Your task to perform on an android device: set an alarm Image 0: 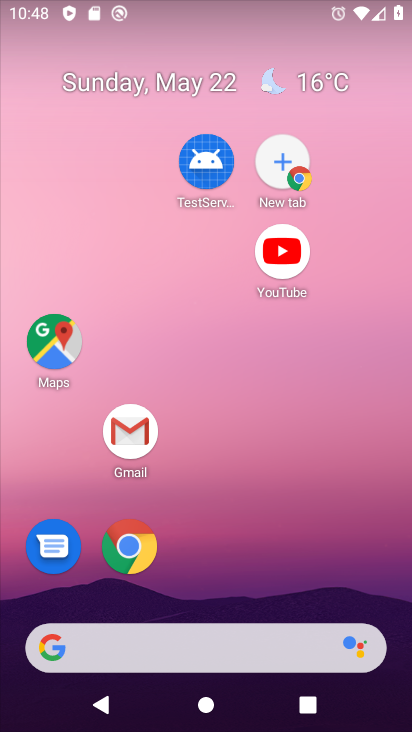
Step 0: drag from (294, 722) to (156, 63)
Your task to perform on an android device: set an alarm Image 1: 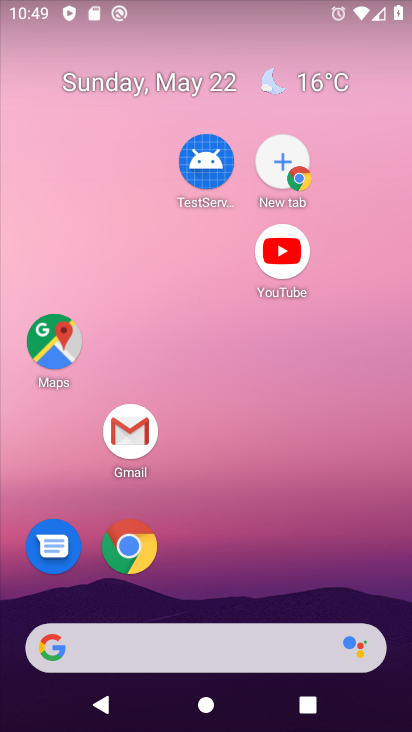
Step 1: drag from (248, 717) to (163, 93)
Your task to perform on an android device: set an alarm Image 2: 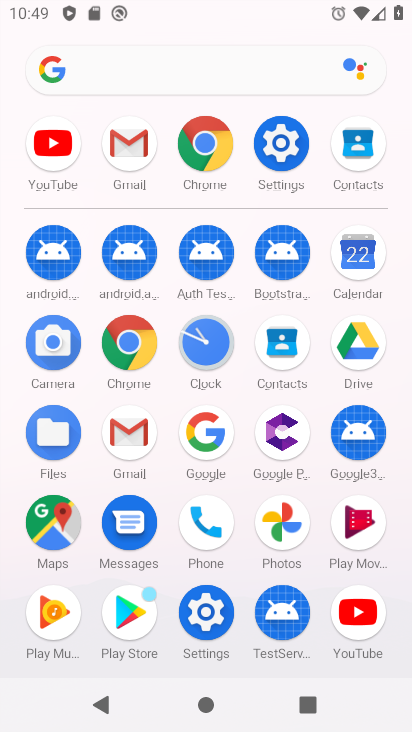
Step 2: click (201, 352)
Your task to perform on an android device: set an alarm Image 3: 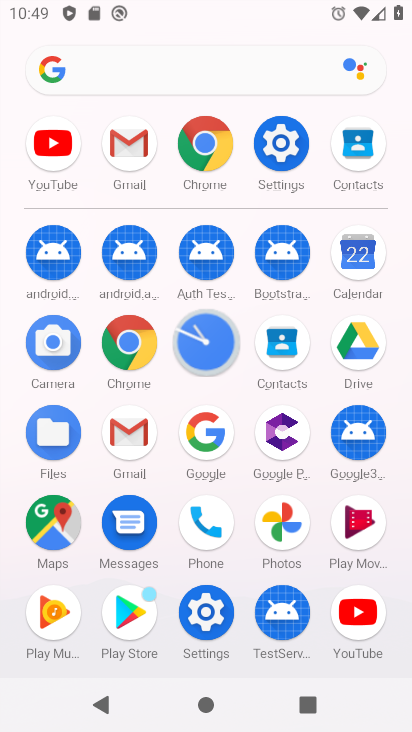
Step 3: click (201, 351)
Your task to perform on an android device: set an alarm Image 4: 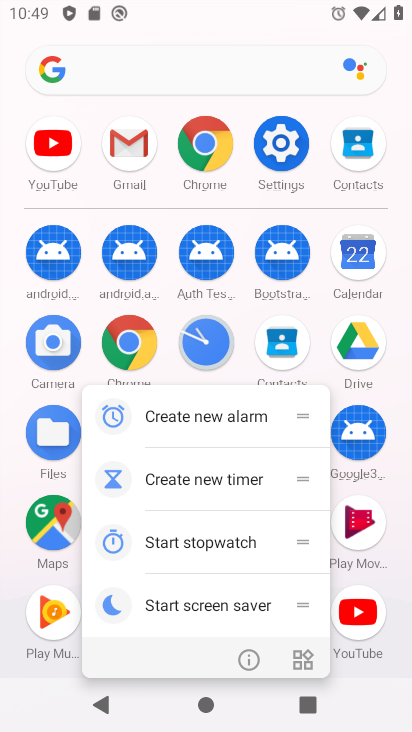
Step 4: click (201, 351)
Your task to perform on an android device: set an alarm Image 5: 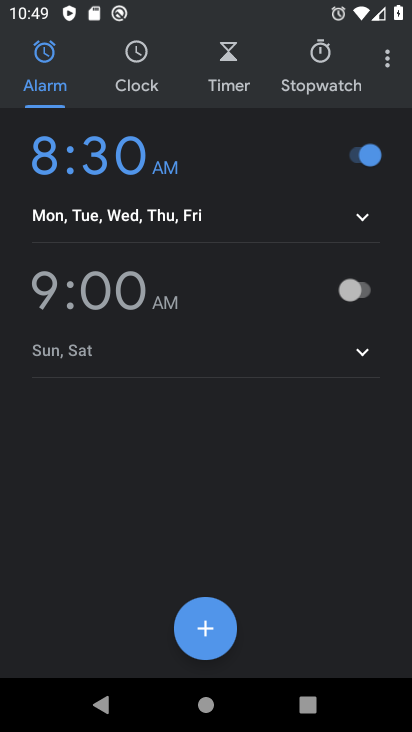
Step 5: click (348, 289)
Your task to perform on an android device: set an alarm Image 6: 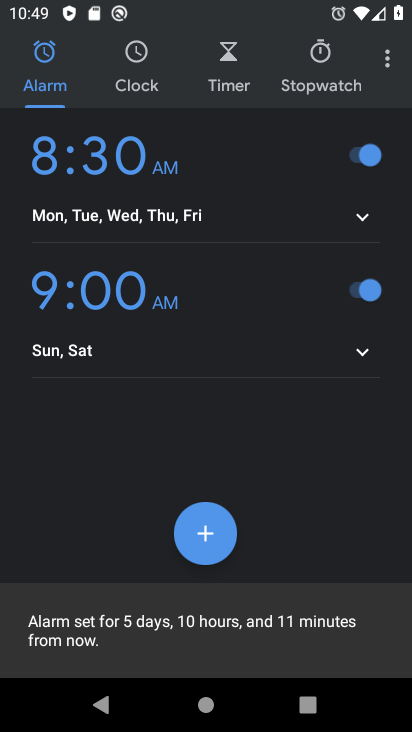
Step 6: task complete